Your task to perform on an android device: Search for "razer kraken" on walmart.com, select the first entry, and add it to the cart. Image 0: 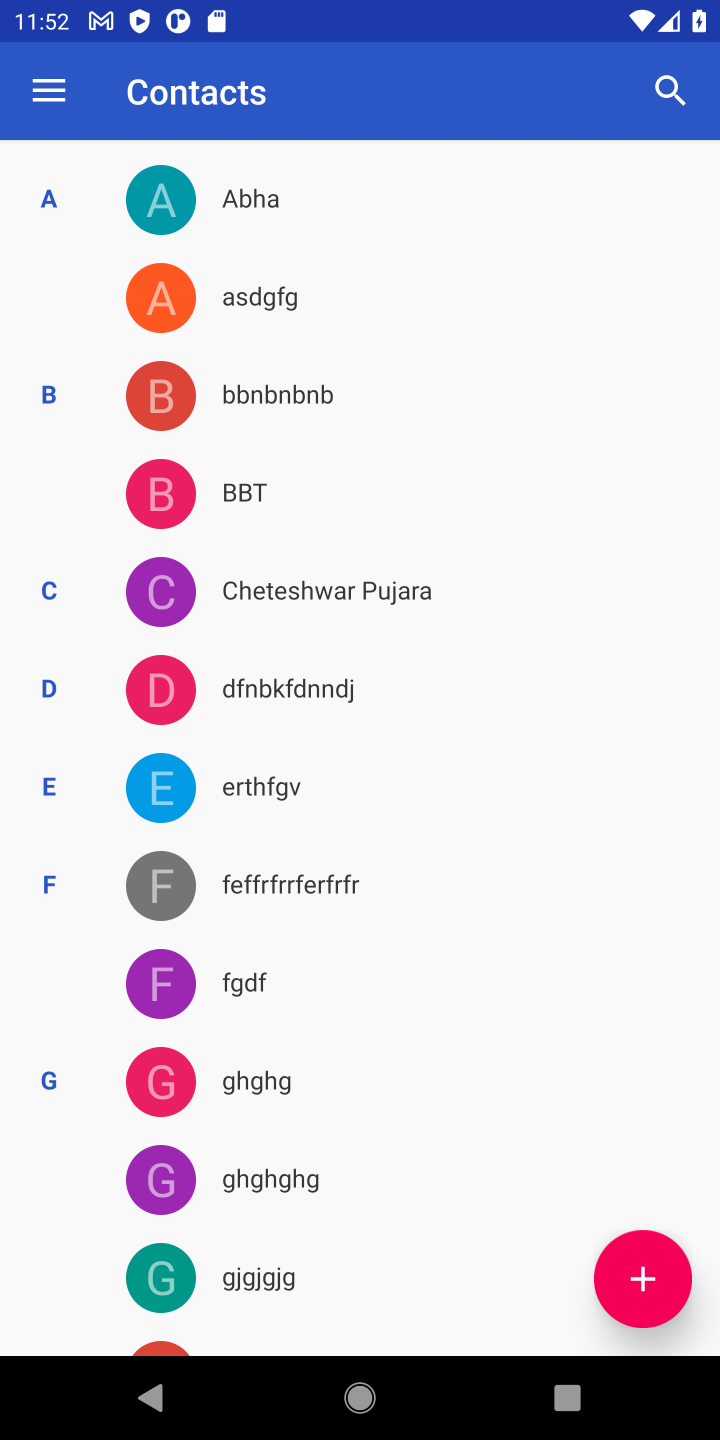
Step 0: press home button
Your task to perform on an android device: Search for "razer kraken" on walmart.com, select the first entry, and add it to the cart. Image 1: 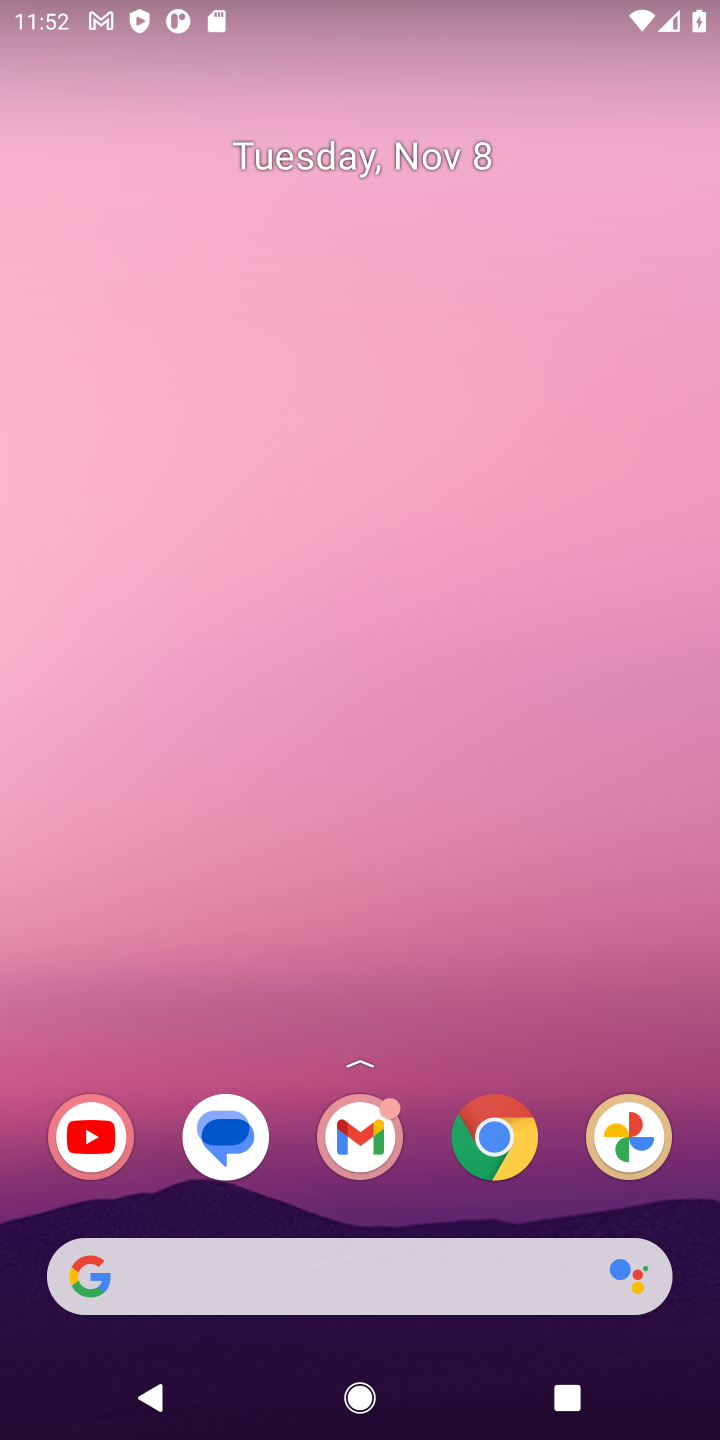
Step 1: click (493, 1140)
Your task to perform on an android device: Search for "razer kraken" on walmart.com, select the first entry, and add it to the cart. Image 2: 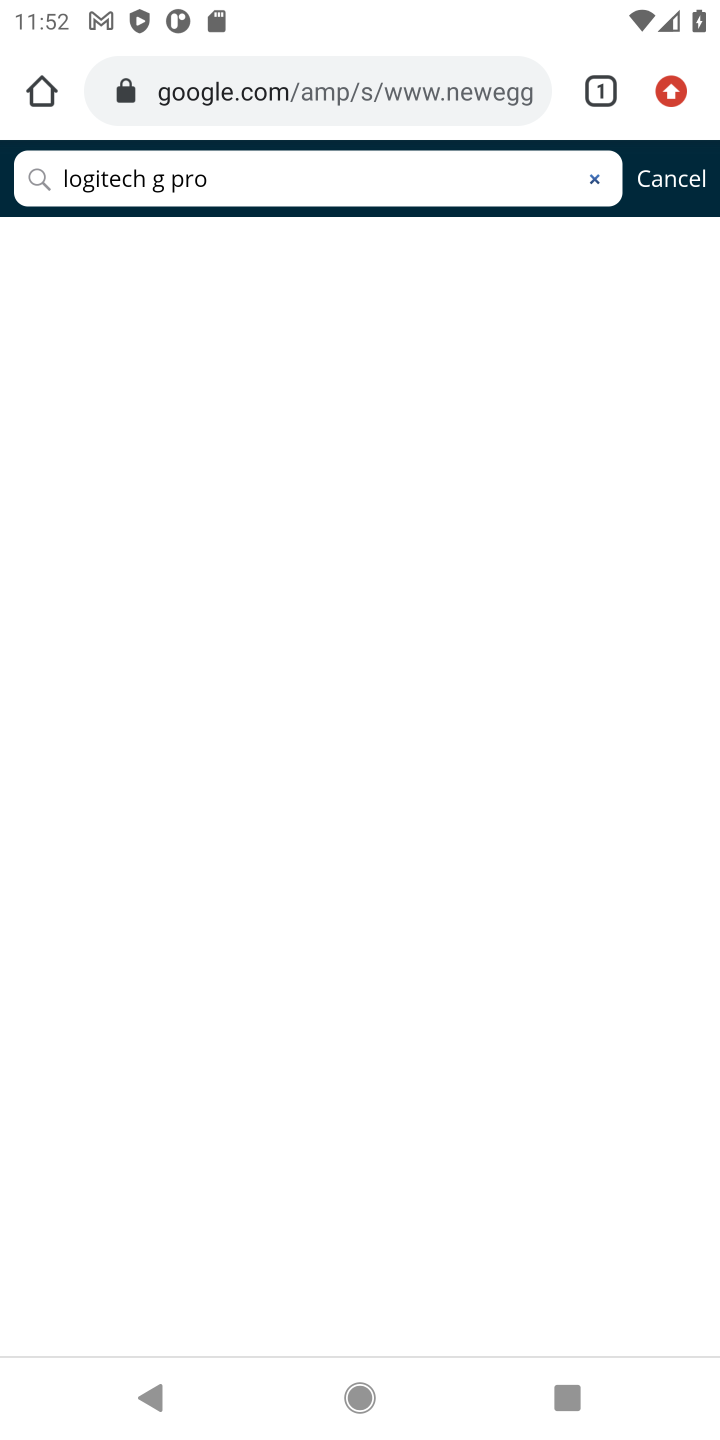
Step 2: click (343, 80)
Your task to perform on an android device: Search for "razer kraken" on walmart.com, select the first entry, and add it to the cart. Image 3: 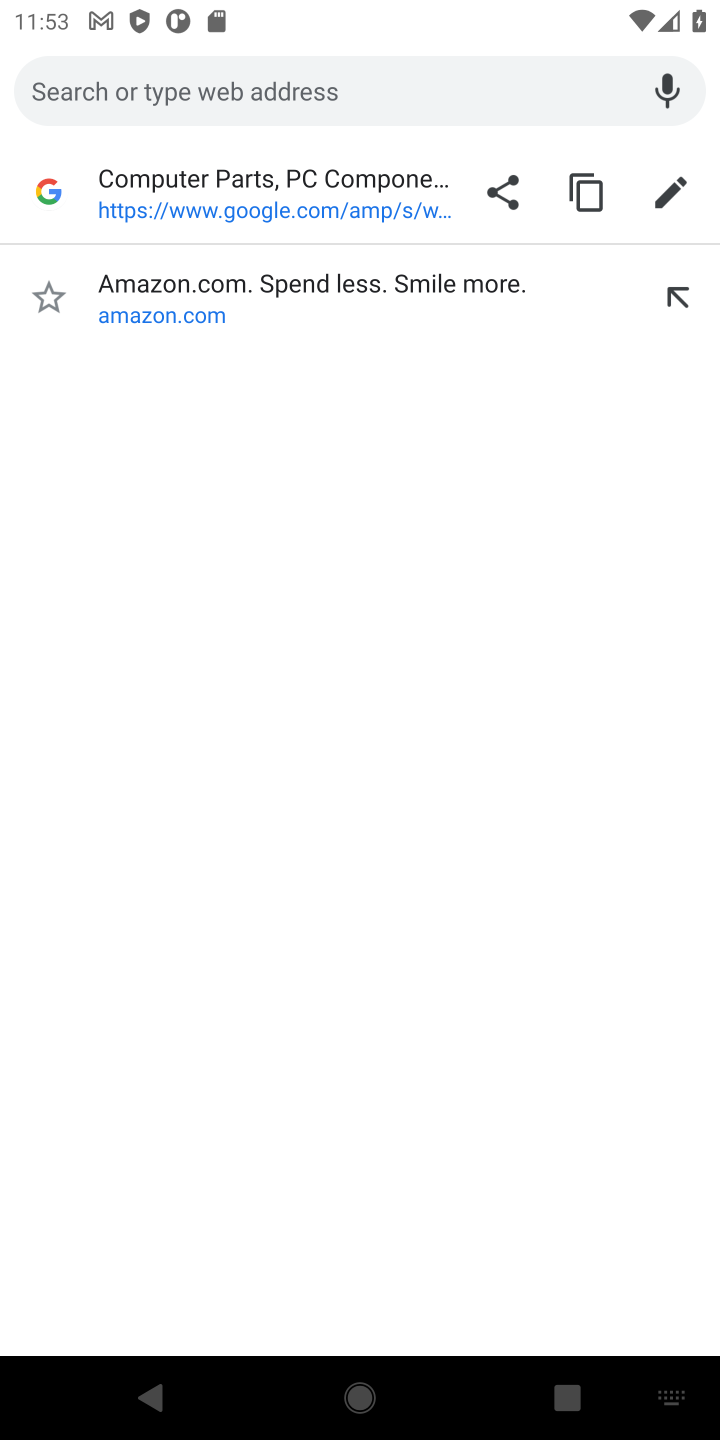
Step 3: type "walmart.com"
Your task to perform on an android device: Search for "razer kraken" on walmart.com, select the first entry, and add it to the cart. Image 4: 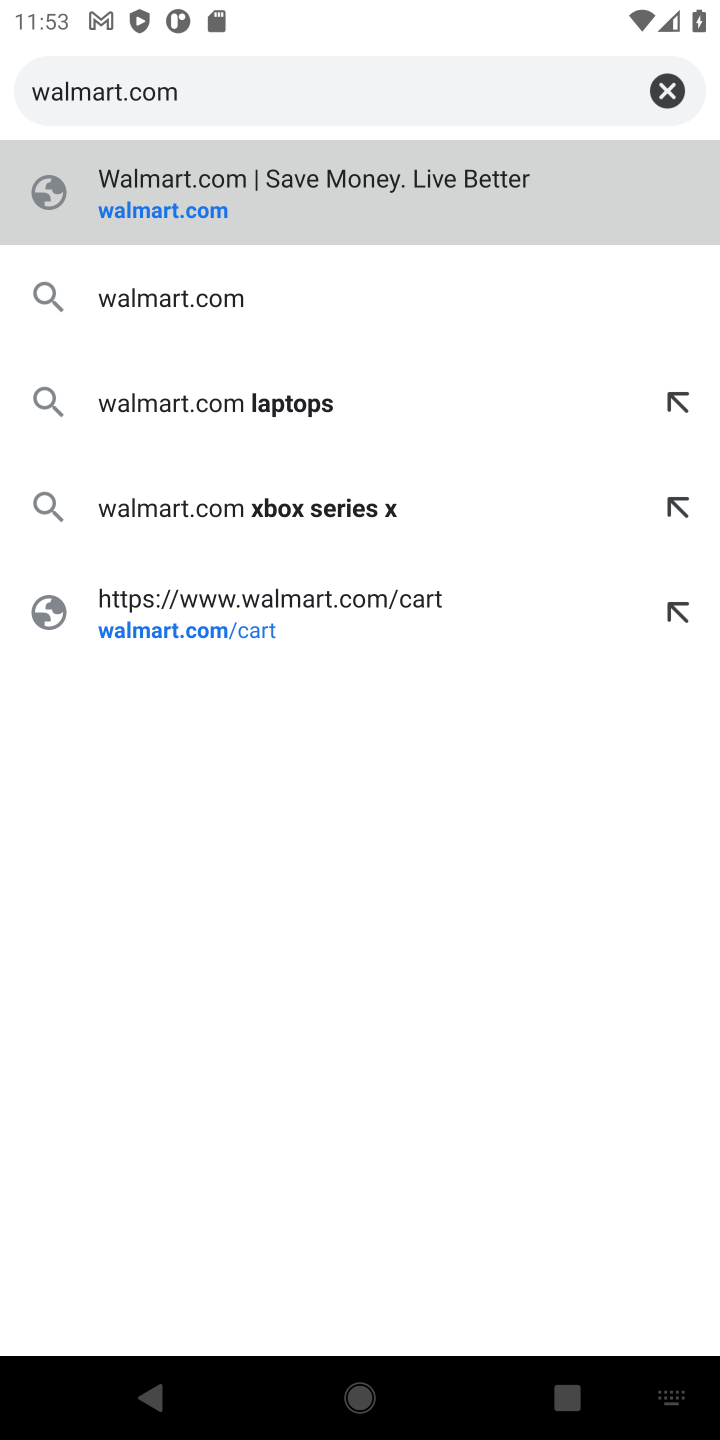
Step 4: click (231, 295)
Your task to perform on an android device: Search for "razer kraken" on walmart.com, select the first entry, and add it to the cart. Image 5: 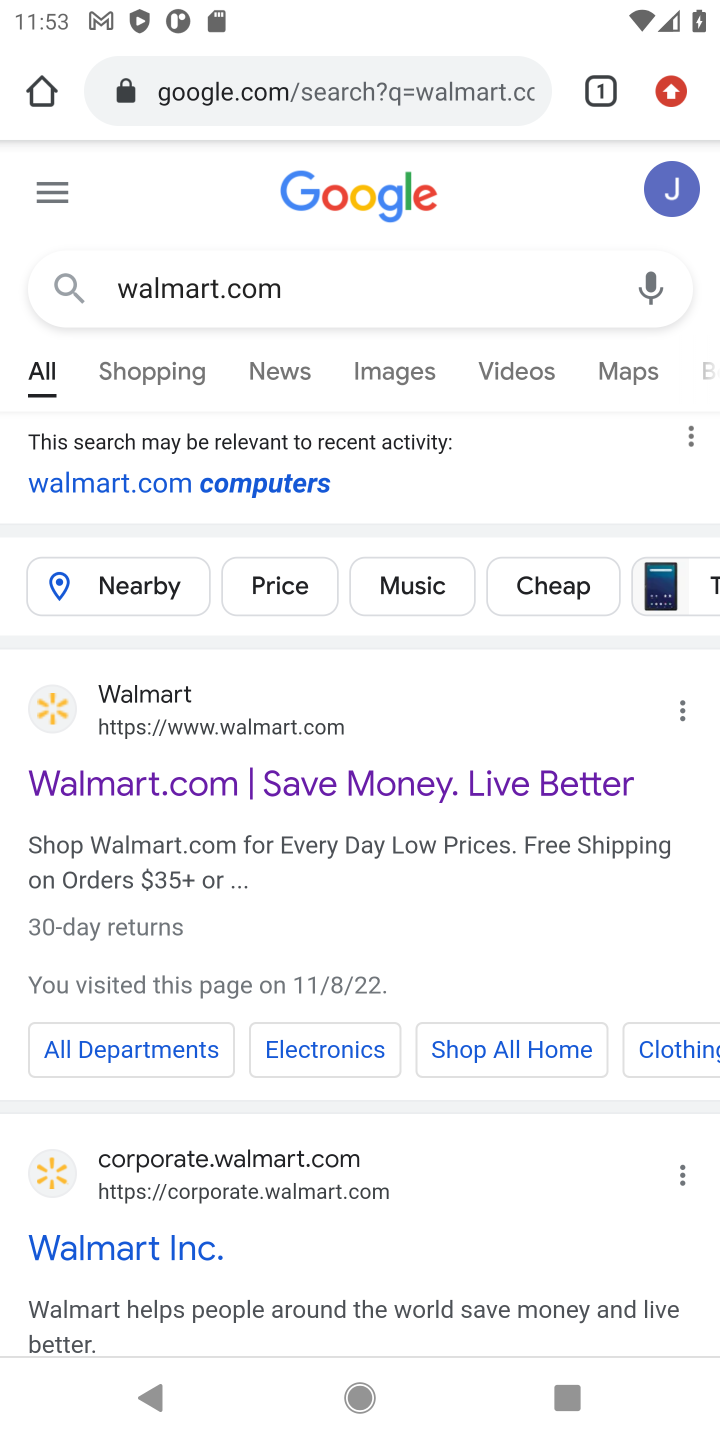
Step 5: click (112, 807)
Your task to perform on an android device: Search for "razer kraken" on walmart.com, select the first entry, and add it to the cart. Image 6: 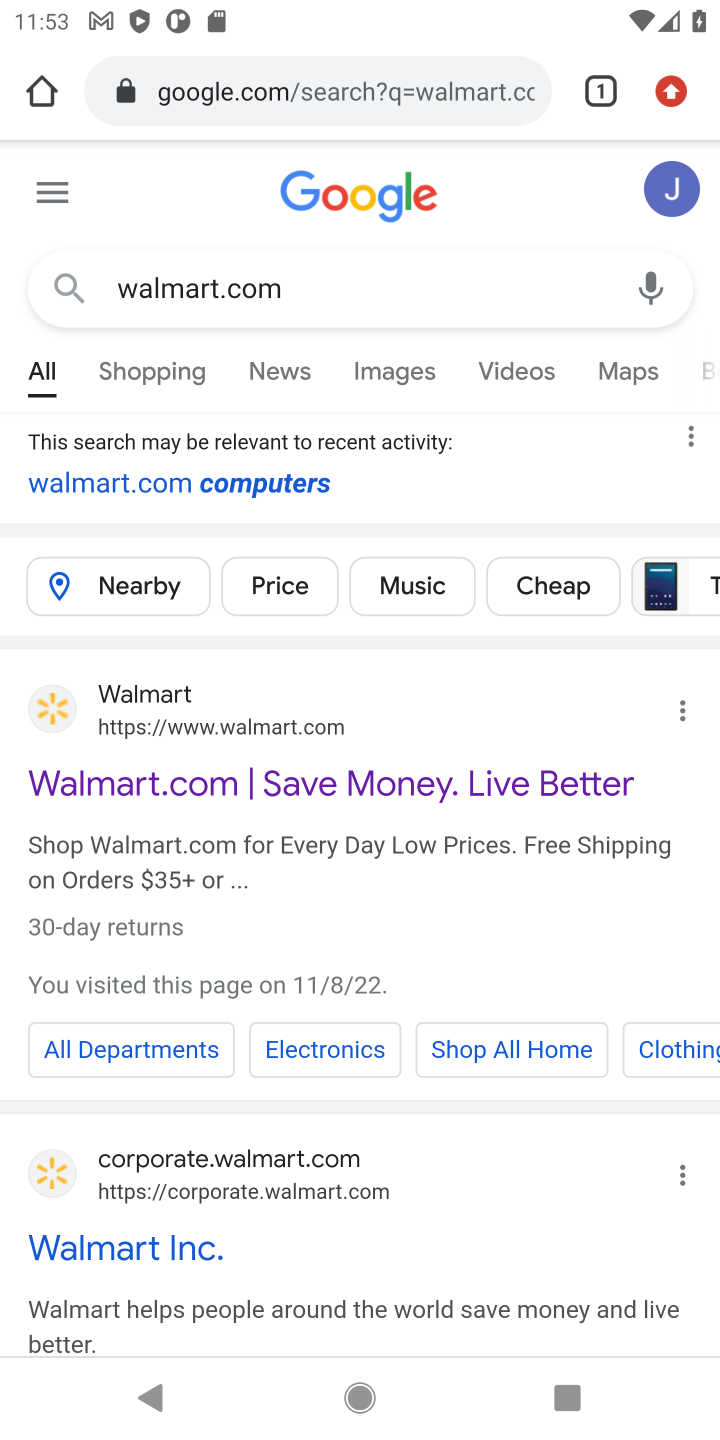
Step 6: click (366, 781)
Your task to perform on an android device: Search for "razer kraken" on walmart.com, select the first entry, and add it to the cart. Image 7: 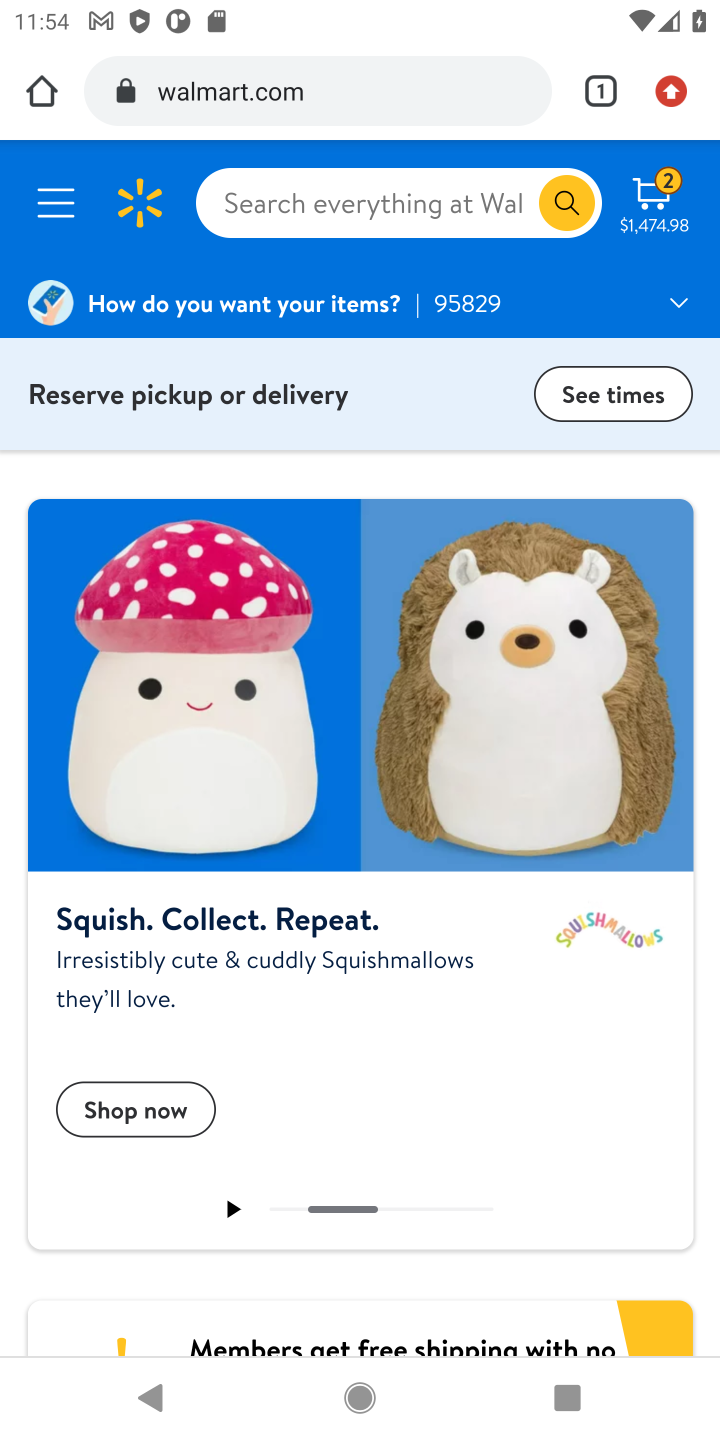
Step 7: click (335, 211)
Your task to perform on an android device: Search for "razer kraken" on walmart.com, select the first entry, and add it to the cart. Image 8: 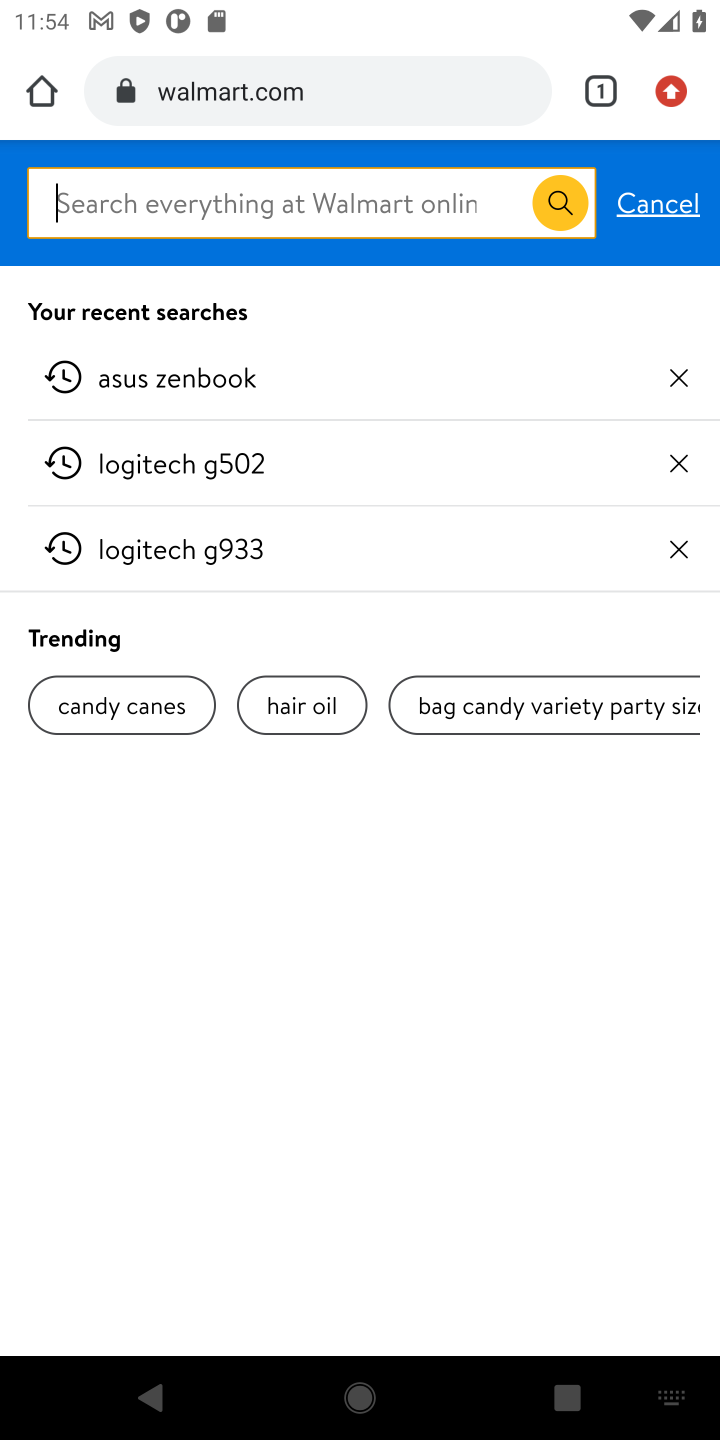
Step 8: type "razer kraken"
Your task to perform on an android device: Search for "razer kraken" on walmart.com, select the first entry, and add it to the cart. Image 9: 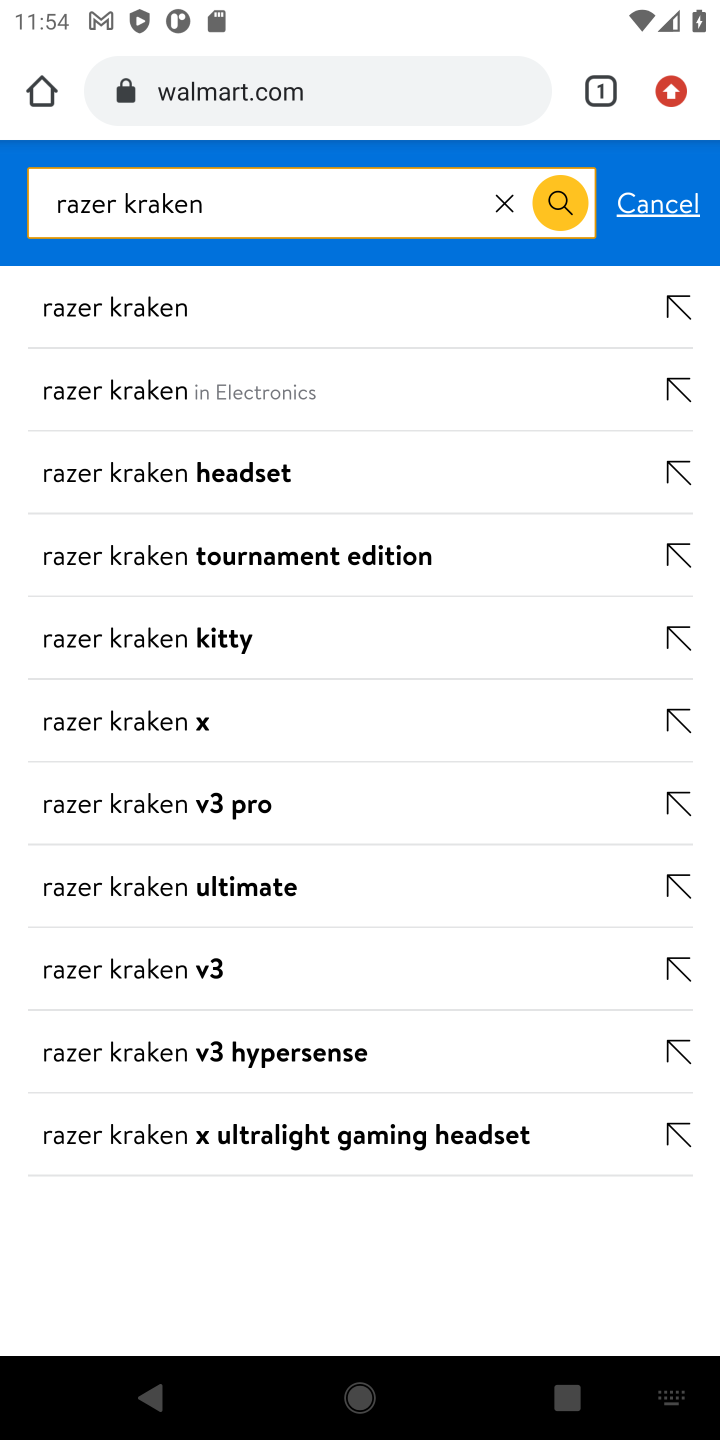
Step 9: click (72, 304)
Your task to perform on an android device: Search for "razer kraken" on walmart.com, select the first entry, and add it to the cart. Image 10: 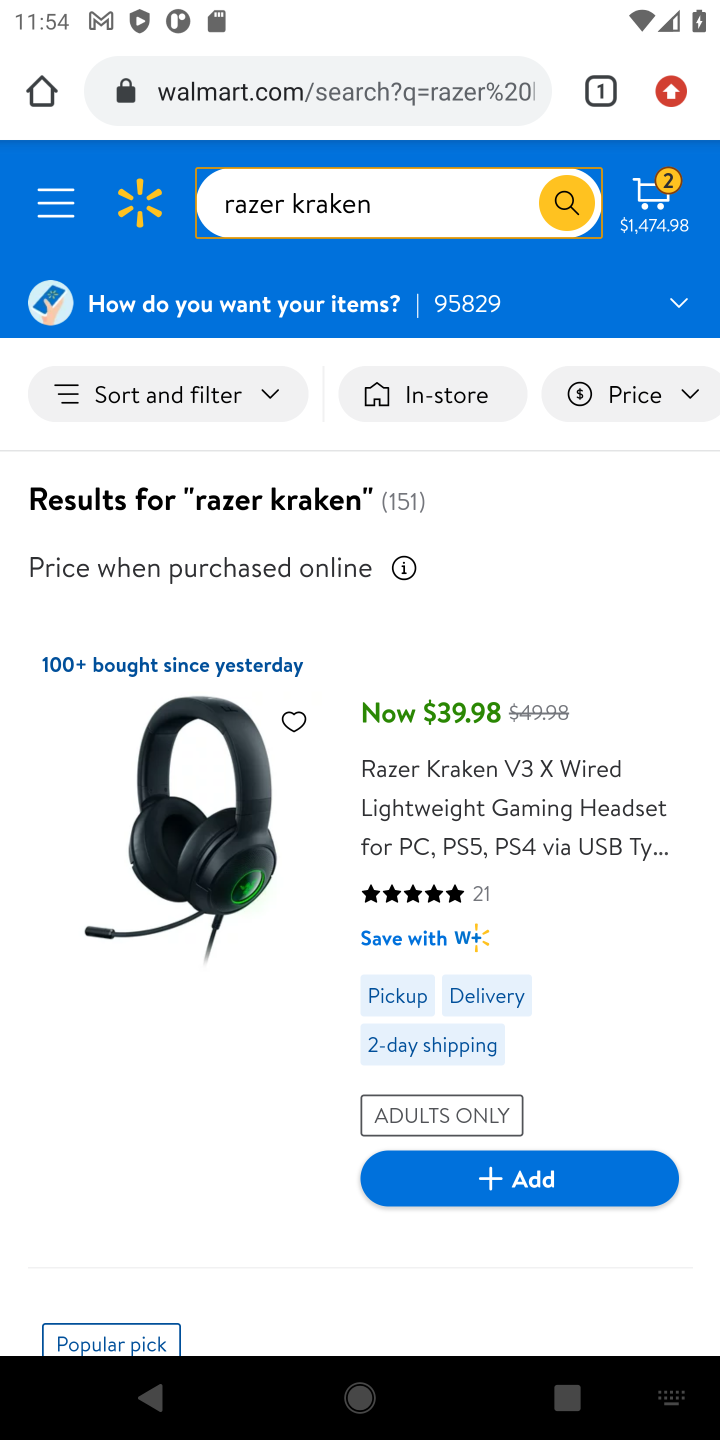
Step 10: click (539, 1190)
Your task to perform on an android device: Search for "razer kraken" on walmart.com, select the first entry, and add it to the cart. Image 11: 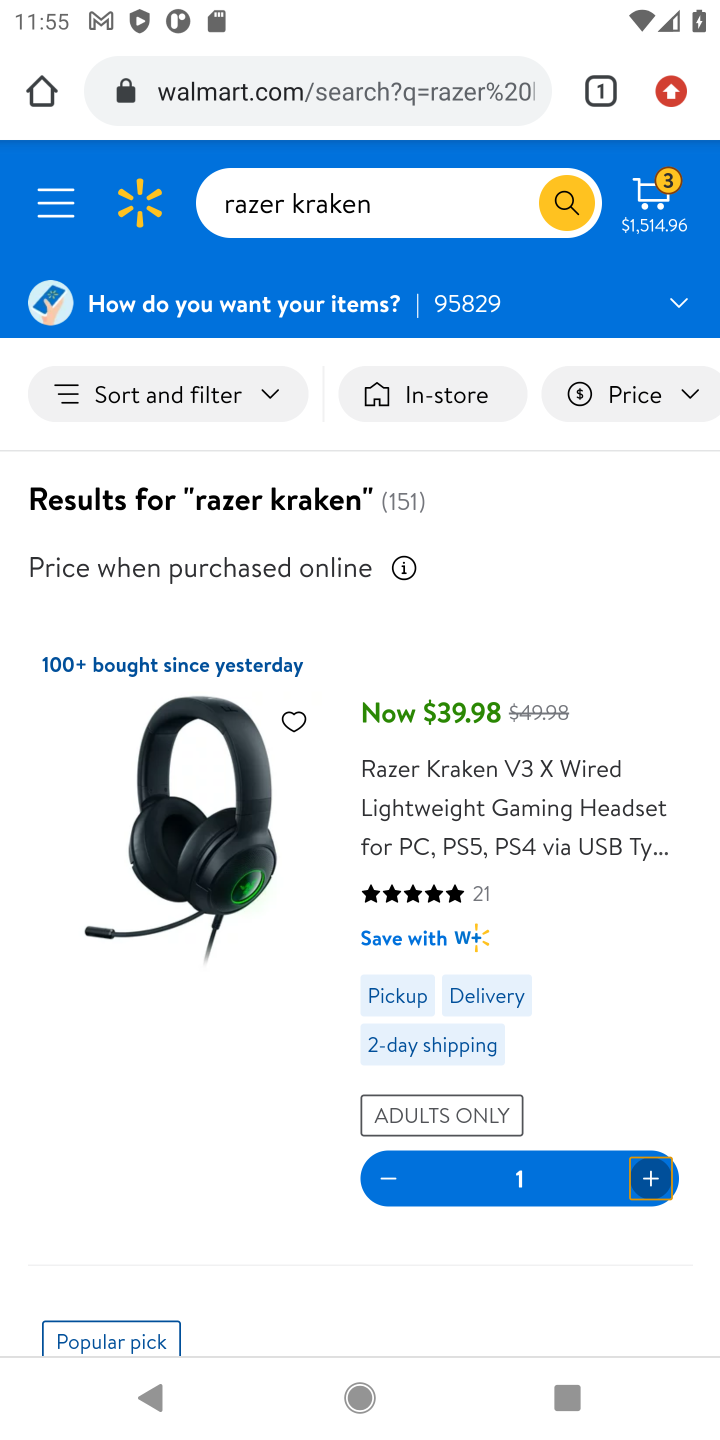
Step 11: task complete